Your task to perform on an android device: turn pop-ups off in chrome Image 0: 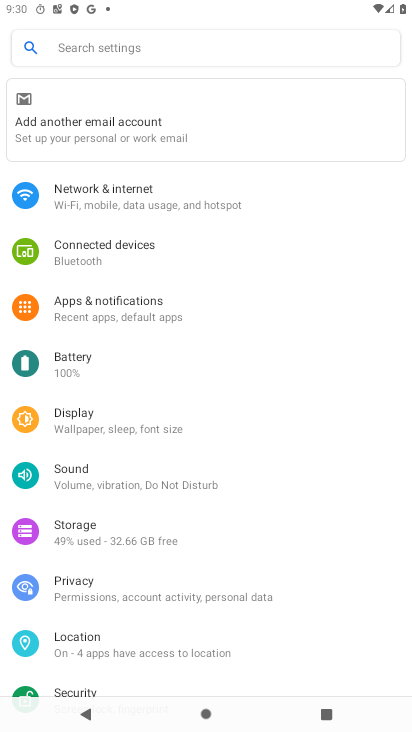
Step 0: press home button
Your task to perform on an android device: turn pop-ups off in chrome Image 1: 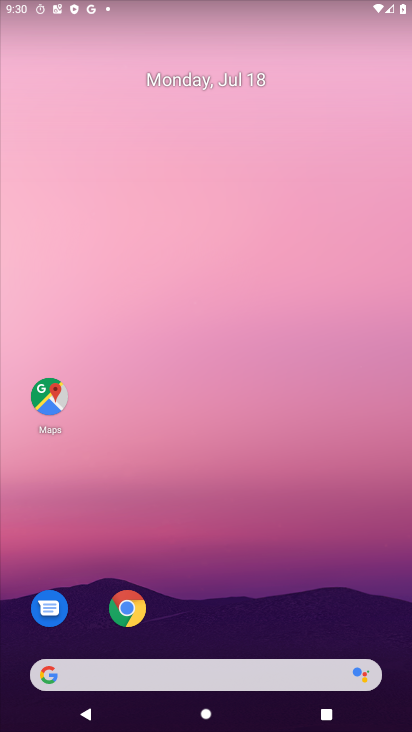
Step 1: click (125, 621)
Your task to perform on an android device: turn pop-ups off in chrome Image 2: 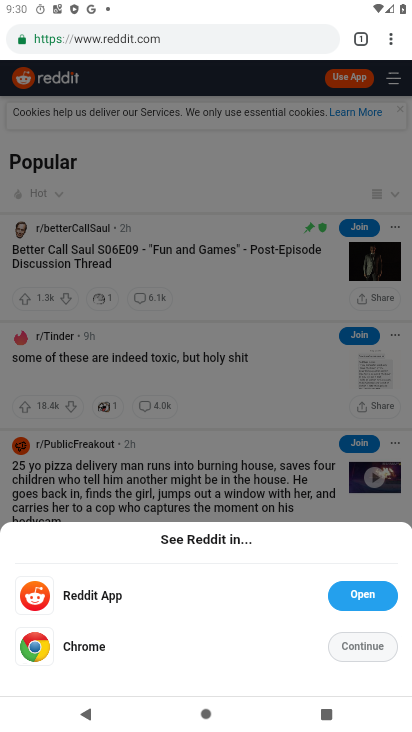
Step 2: click (371, 649)
Your task to perform on an android device: turn pop-ups off in chrome Image 3: 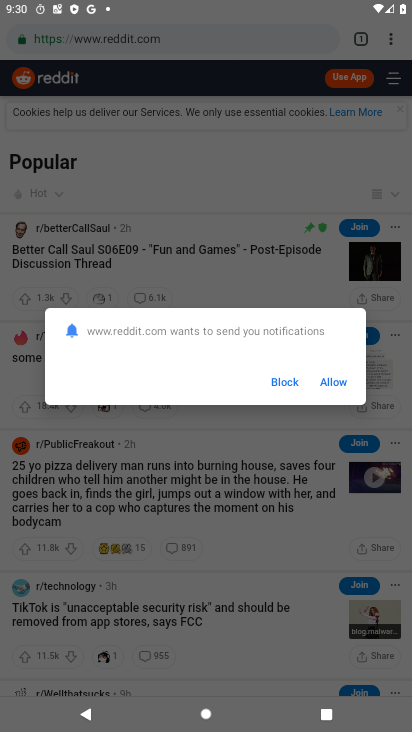
Step 3: click (292, 386)
Your task to perform on an android device: turn pop-ups off in chrome Image 4: 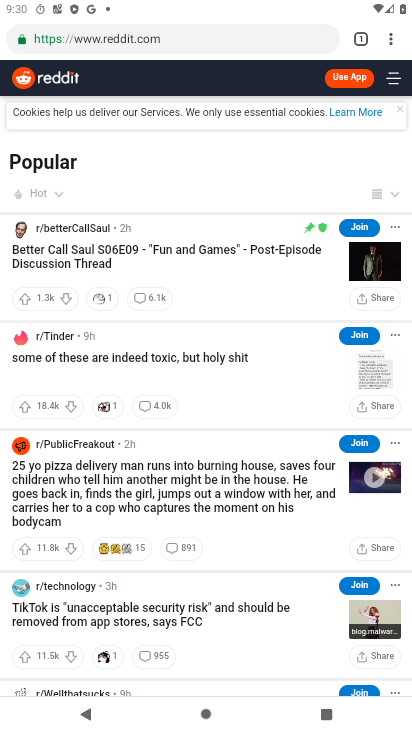
Step 4: click (393, 40)
Your task to perform on an android device: turn pop-ups off in chrome Image 5: 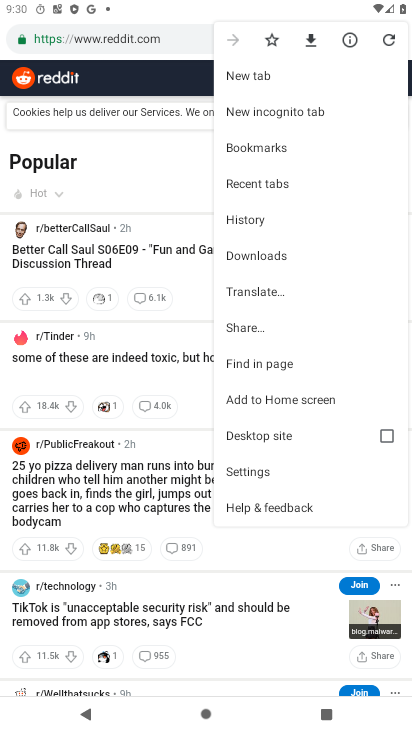
Step 5: click (240, 464)
Your task to perform on an android device: turn pop-ups off in chrome Image 6: 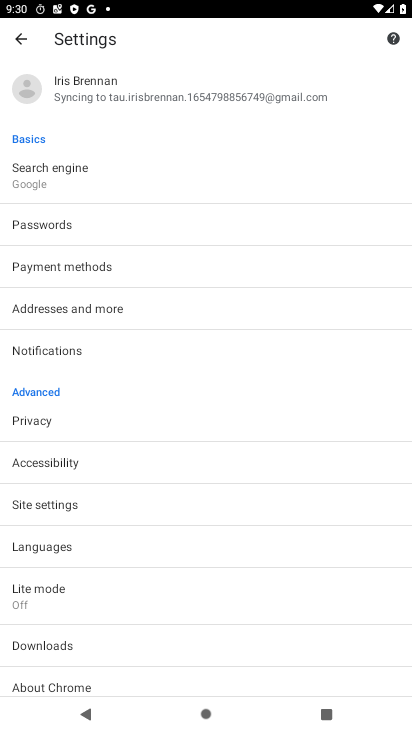
Step 6: click (70, 500)
Your task to perform on an android device: turn pop-ups off in chrome Image 7: 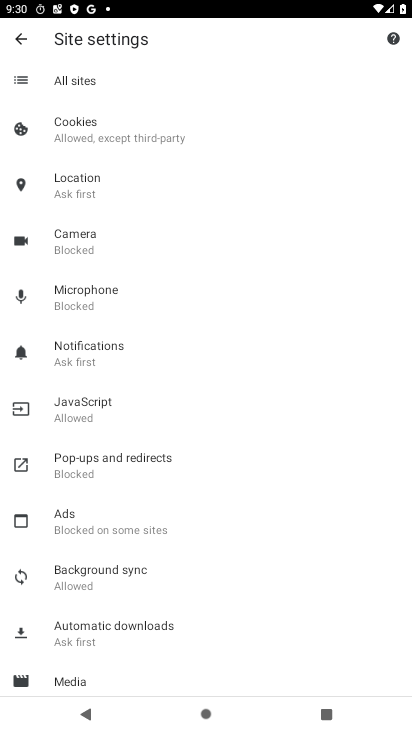
Step 7: click (82, 481)
Your task to perform on an android device: turn pop-ups off in chrome Image 8: 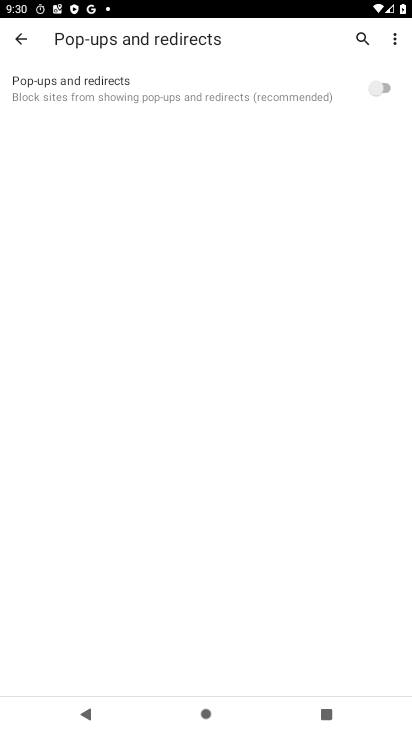
Step 8: task complete